Your task to perform on an android device: Check the news Image 0: 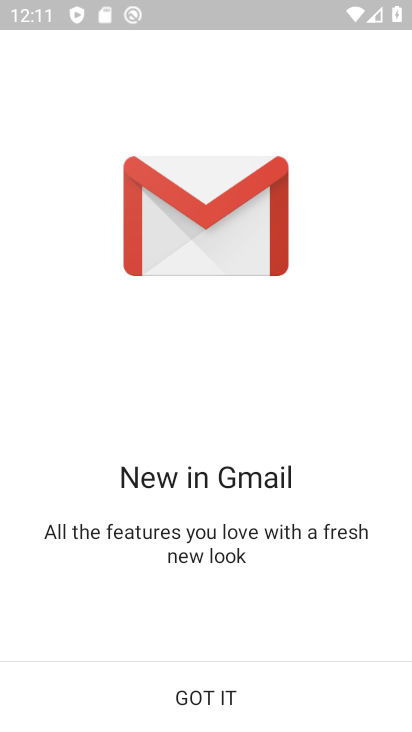
Step 0: drag from (332, 612) to (335, 147)
Your task to perform on an android device: Check the news Image 1: 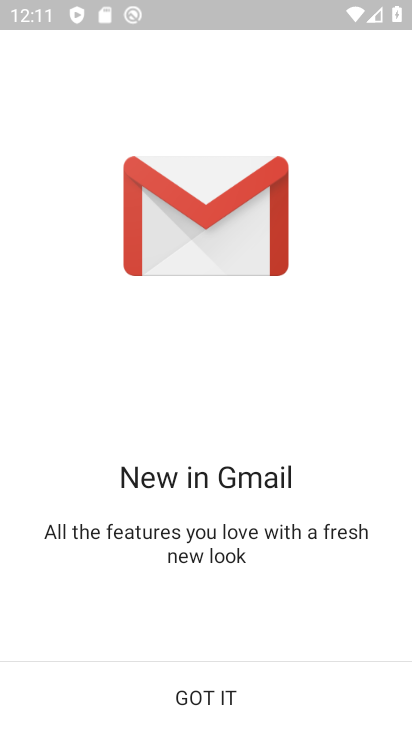
Step 1: press home button
Your task to perform on an android device: Check the news Image 2: 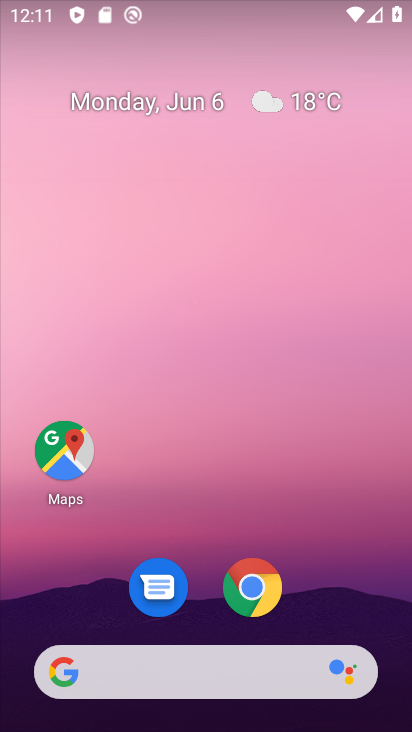
Step 2: drag from (356, 572) to (341, 177)
Your task to perform on an android device: Check the news Image 3: 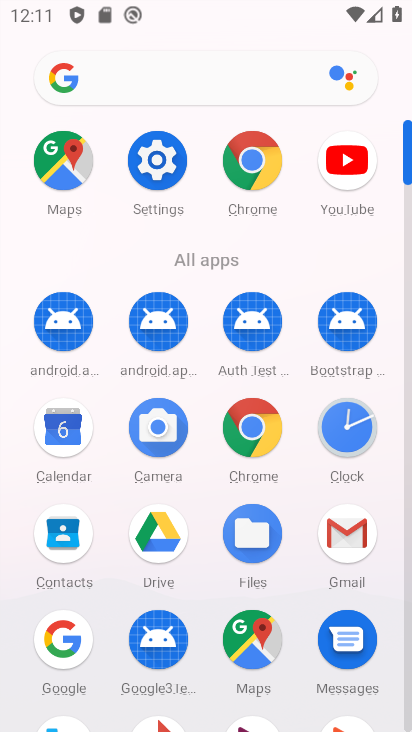
Step 3: click (254, 443)
Your task to perform on an android device: Check the news Image 4: 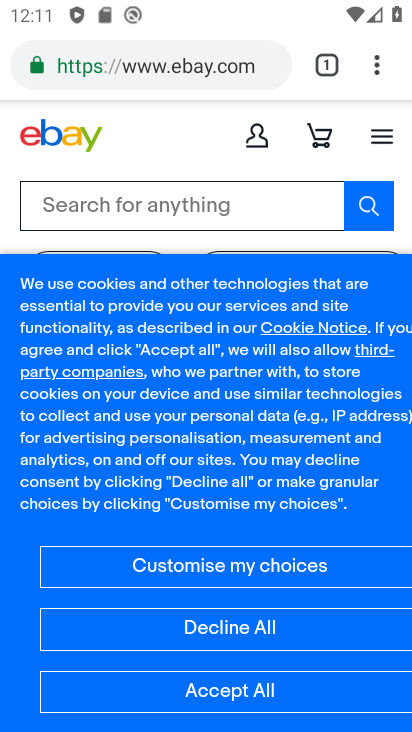
Step 4: click (211, 69)
Your task to perform on an android device: Check the news Image 5: 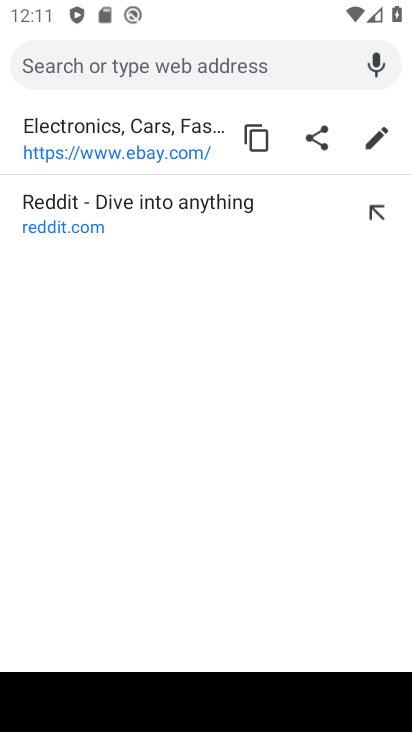
Step 5: type "check the news"
Your task to perform on an android device: Check the news Image 6: 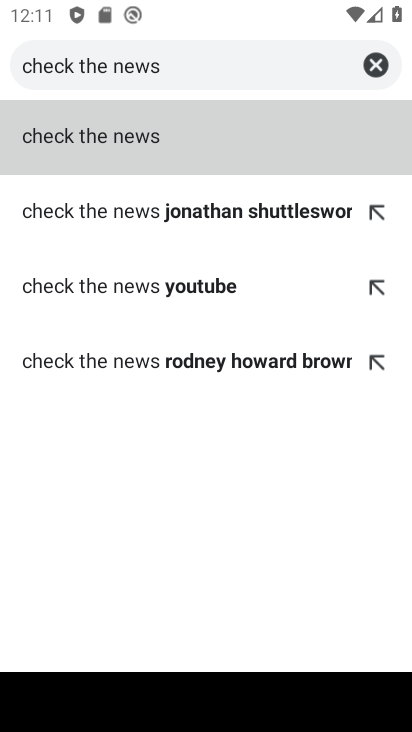
Step 6: click (150, 149)
Your task to perform on an android device: Check the news Image 7: 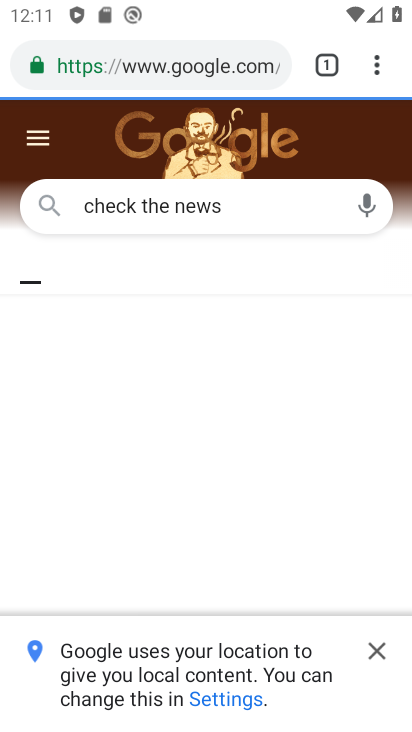
Step 7: click (383, 657)
Your task to perform on an android device: Check the news Image 8: 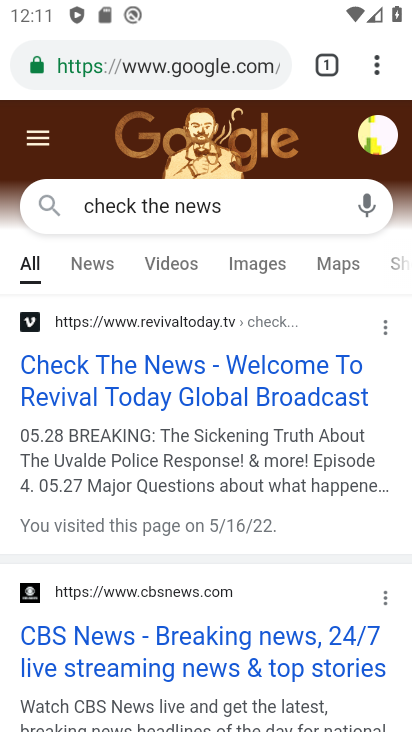
Step 8: drag from (202, 611) to (230, 316)
Your task to perform on an android device: Check the news Image 9: 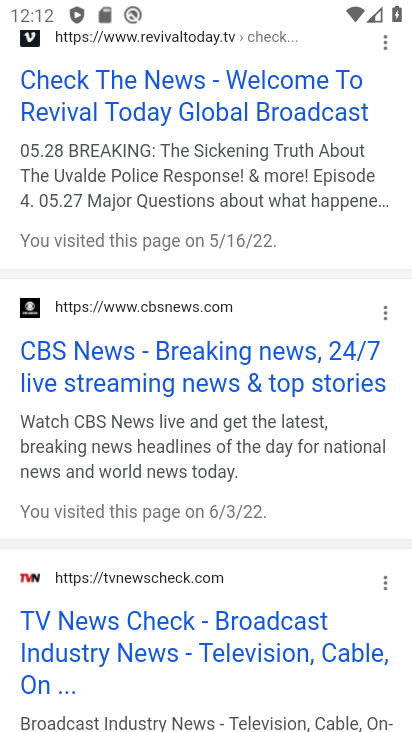
Step 9: click (184, 370)
Your task to perform on an android device: Check the news Image 10: 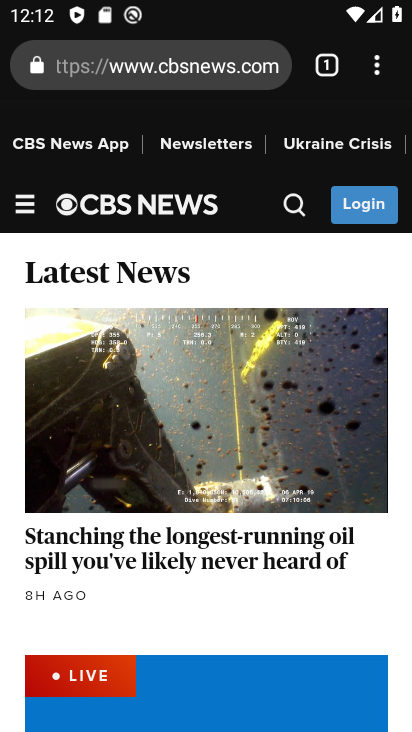
Step 10: task complete